Your task to perform on an android device: change the upload size in google photos Image 0: 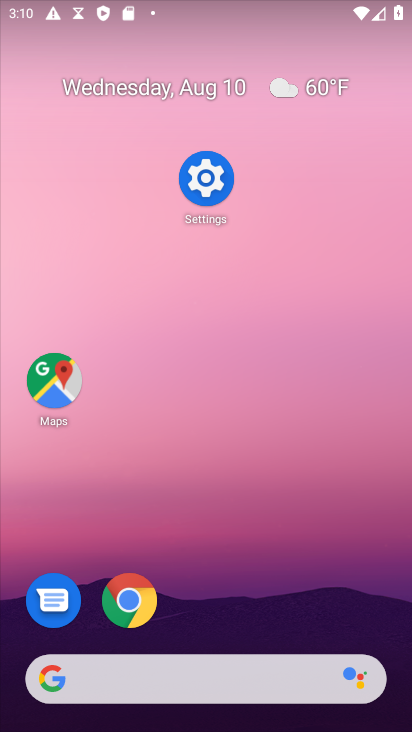
Step 0: press home button
Your task to perform on an android device: change the upload size in google photos Image 1: 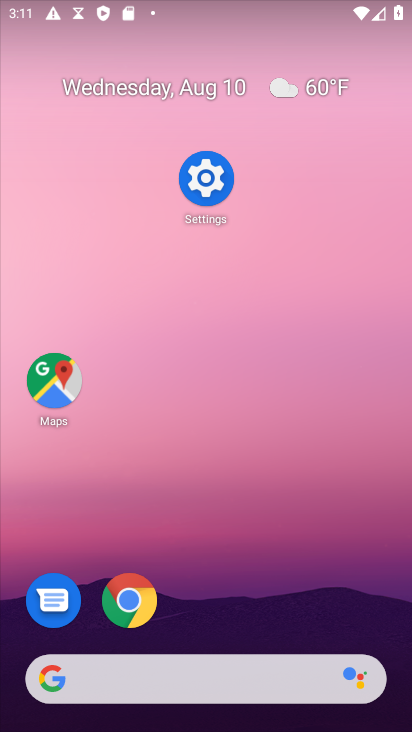
Step 1: drag from (232, 632) to (227, 101)
Your task to perform on an android device: change the upload size in google photos Image 2: 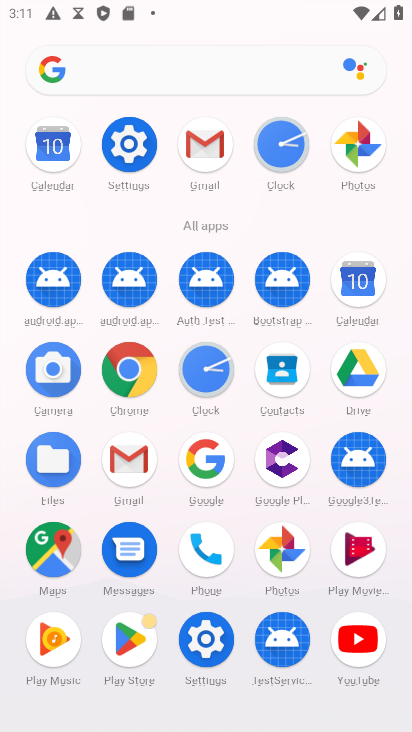
Step 2: click (356, 150)
Your task to perform on an android device: change the upload size in google photos Image 3: 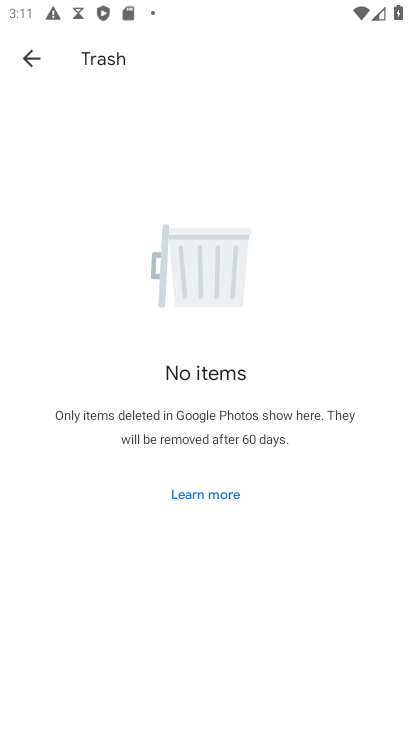
Step 3: press back button
Your task to perform on an android device: change the upload size in google photos Image 4: 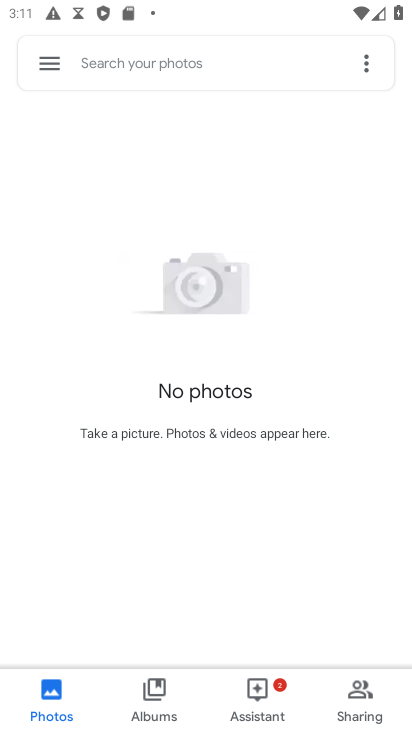
Step 4: click (54, 64)
Your task to perform on an android device: change the upload size in google photos Image 5: 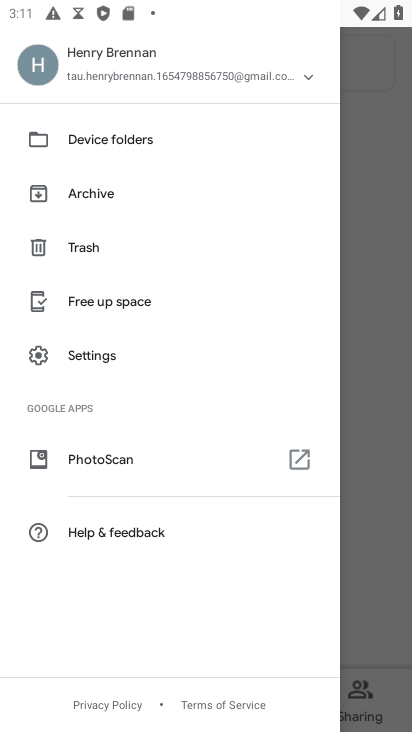
Step 5: click (88, 356)
Your task to perform on an android device: change the upload size in google photos Image 6: 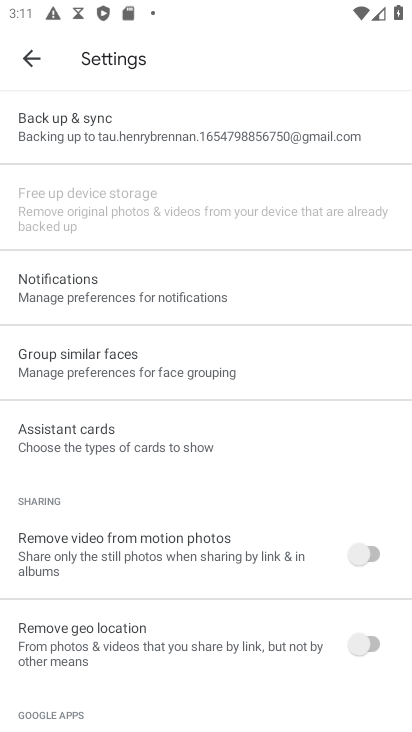
Step 6: click (56, 123)
Your task to perform on an android device: change the upload size in google photos Image 7: 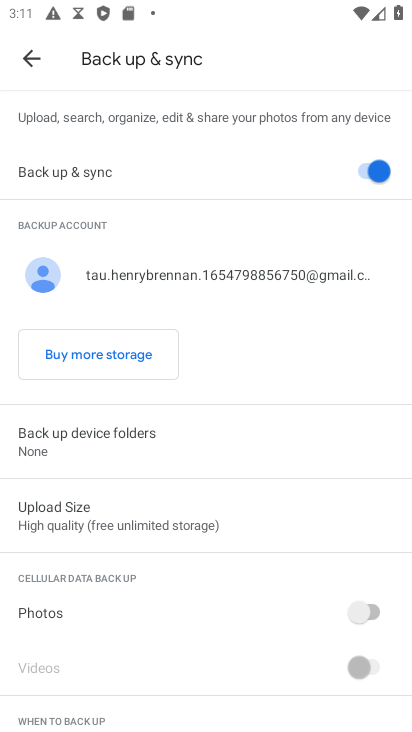
Step 7: click (49, 527)
Your task to perform on an android device: change the upload size in google photos Image 8: 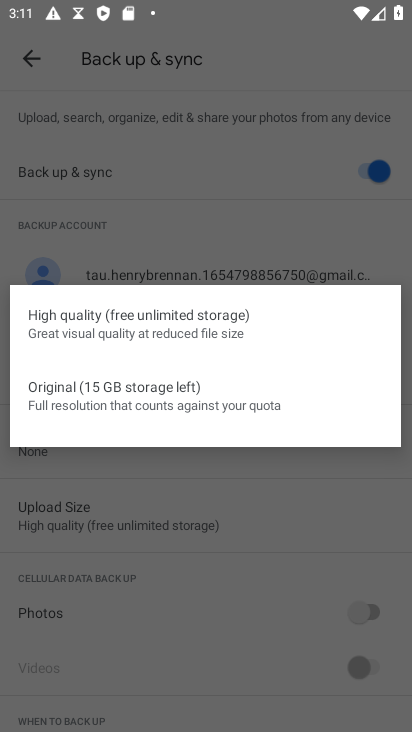
Step 8: click (86, 398)
Your task to perform on an android device: change the upload size in google photos Image 9: 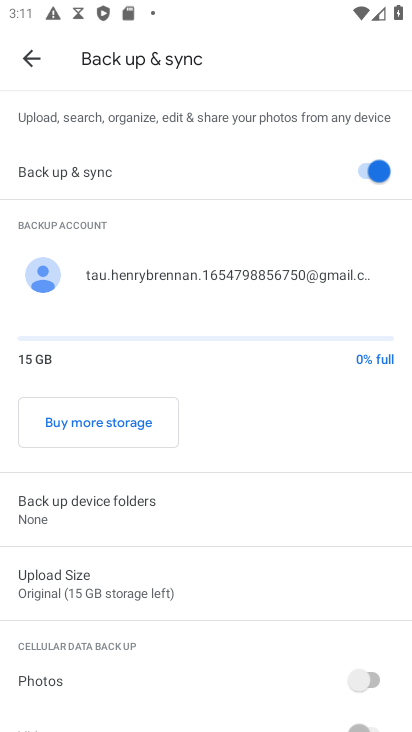
Step 9: task complete